Your task to perform on an android device: Go to Amazon Image 0: 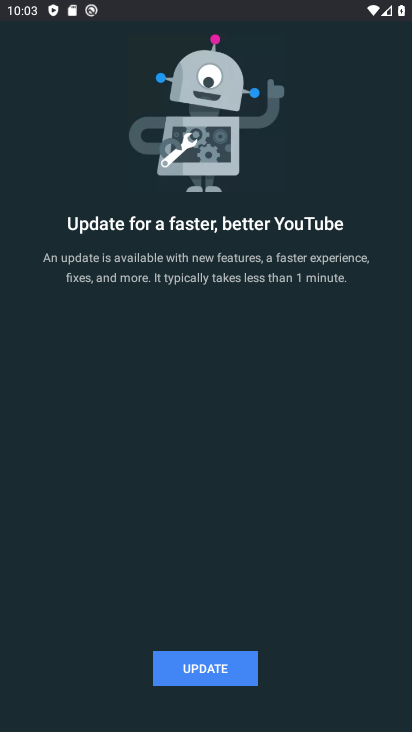
Step 0: press home button
Your task to perform on an android device: Go to Amazon Image 1: 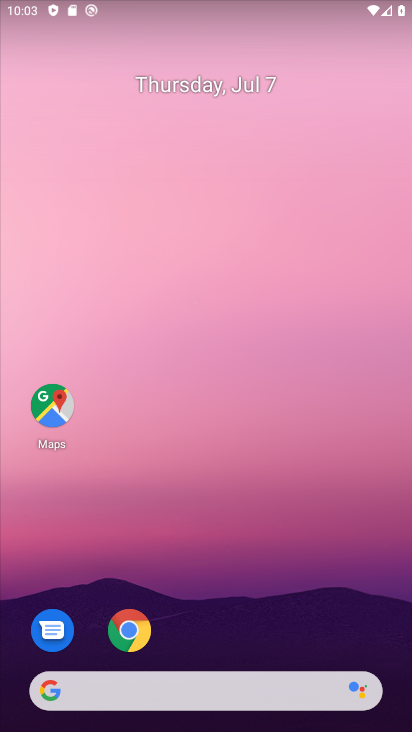
Step 1: click (108, 691)
Your task to perform on an android device: Go to Amazon Image 2: 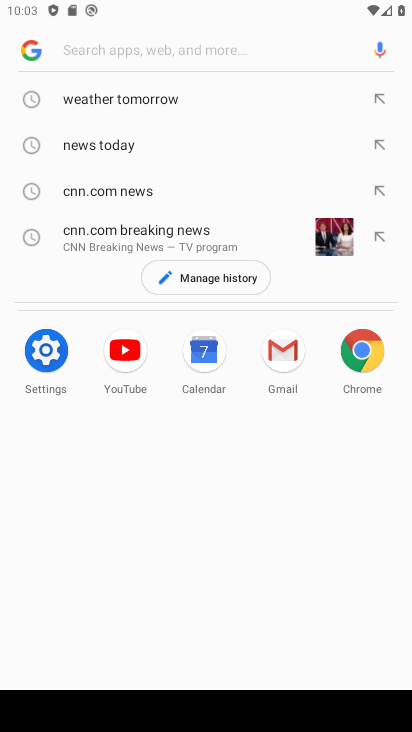
Step 2: type "Amazon"
Your task to perform on an android device: Go to Amazon Image 3: 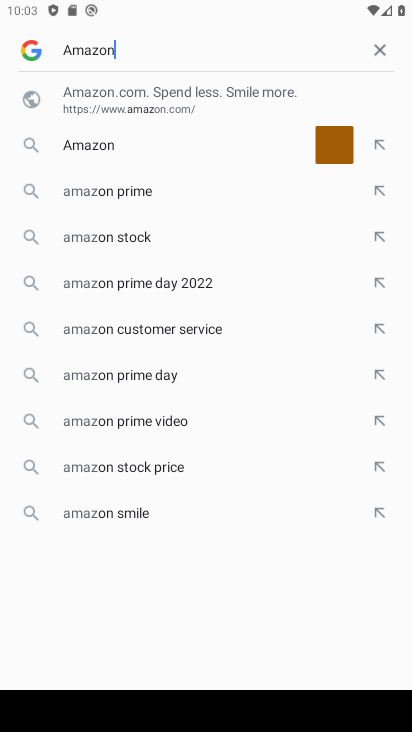
Step 3: type ""
Your task to perform on an android device: Go to Amazon Image 4: 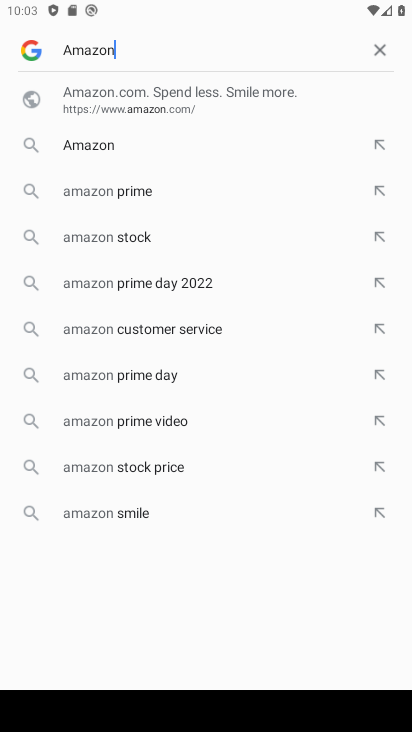
Step 4: click (143, 102)
Your task to perform on an android device: Go to Amazon Image 5: 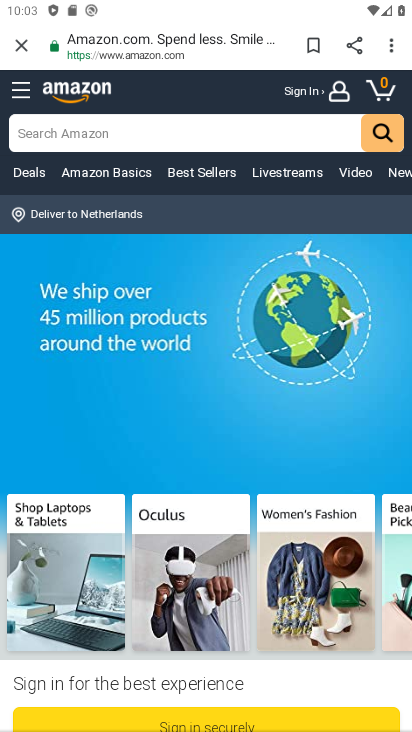
Step 5: task complete